Your task to perform on an android device: turn pop-ups on in chrome Image 0: 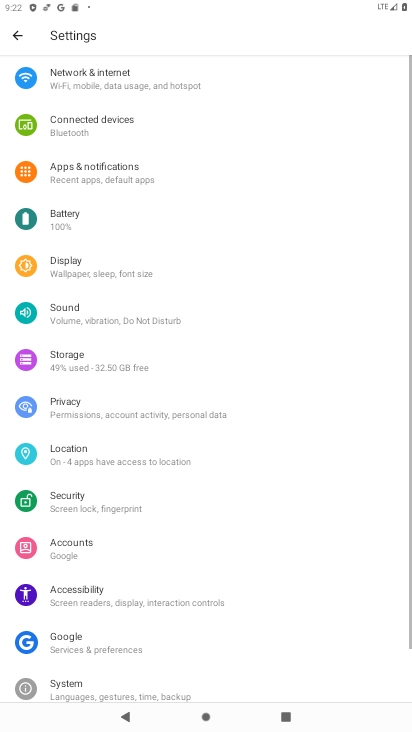
Step 0: press home button
Your task to perform on an android device: turn pop-ups on in chrome Image 1: 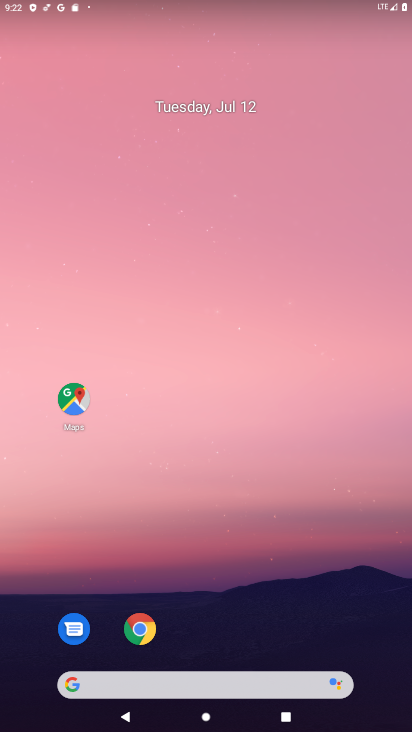
Step 1: drag from (250, 628) to (219, 225)
Your task to perform on an android device: turn pop-ups on in chrome Image 2: 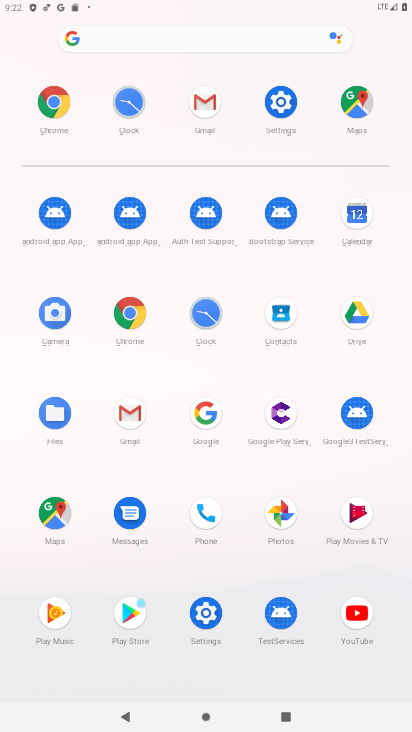
Step 2: click (56, 105)
Your task to perform on an android device: turn pop-ups on in chrome Image 3: 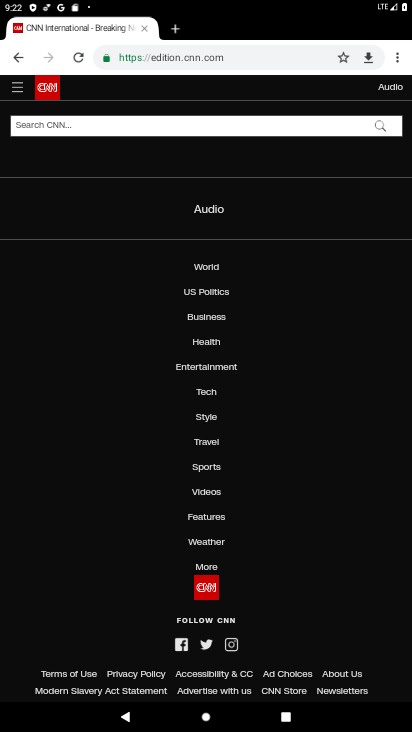
Step 3: click (401, 54)
Your task to perform on an android device: turn pop-ups on in chrome Image 4: 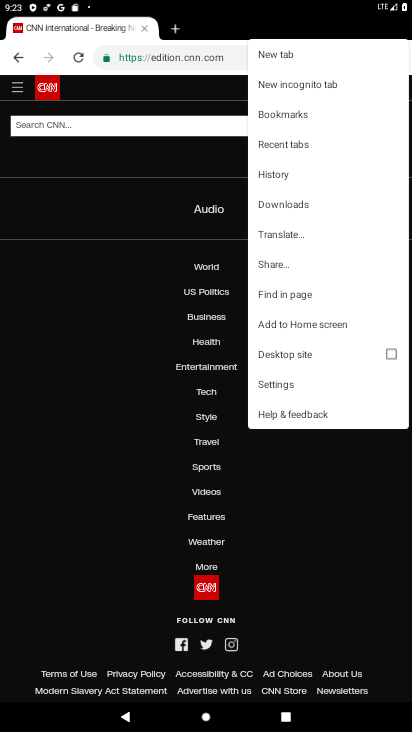
Step 4: click (280, 379)
Your task to perform on an android device: turn pop-ups on in chrome Image 5: 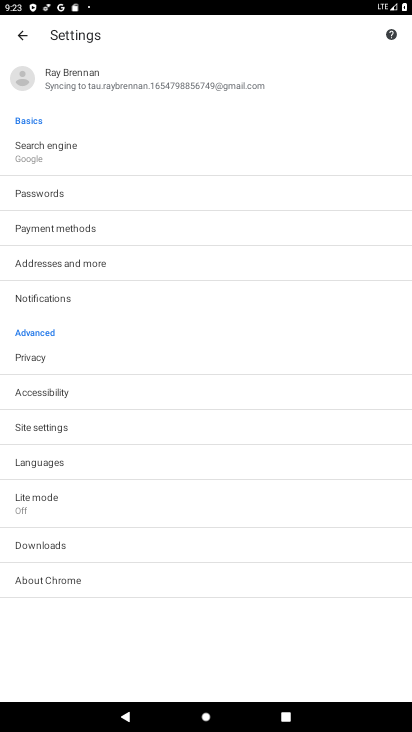
Step 5: click (156, 427)
Your task to perform on an android device: turn pop-ups on in chrome Image 6: 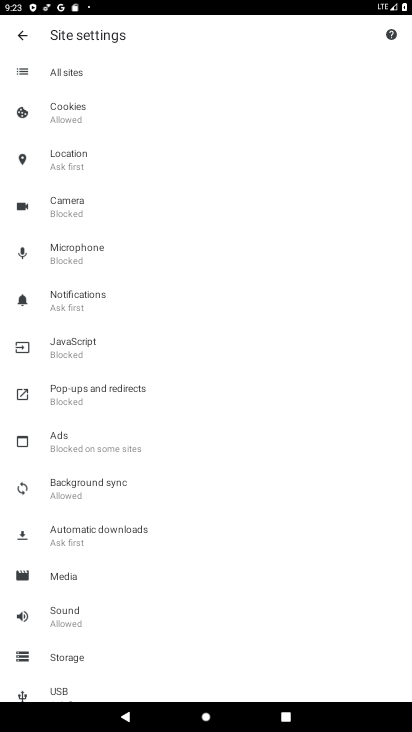
Step 6: click (114, 397)
Your task to perform on an android device: turn pop-ups on in chrome Image 7: 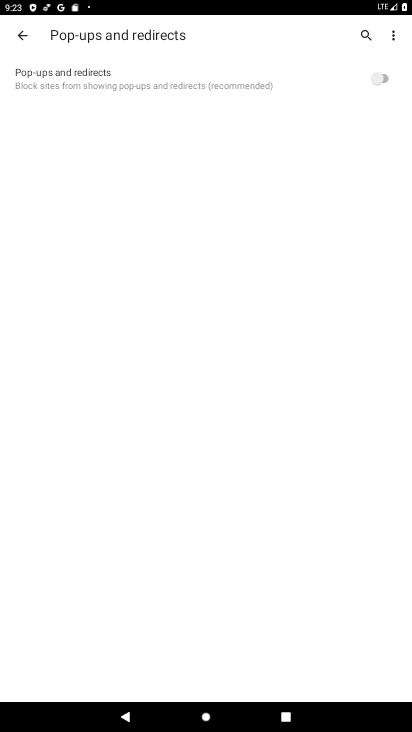
Step 7: click (381, 75)
Your task to perform on an android device: turn pop-ups on in chrome Image 8: 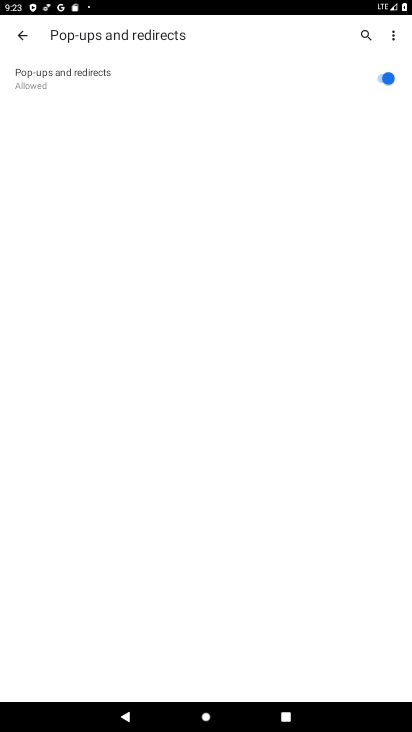
Step 8: task complete